Your task to perform on an android device: toggle sleep mode Image 0: 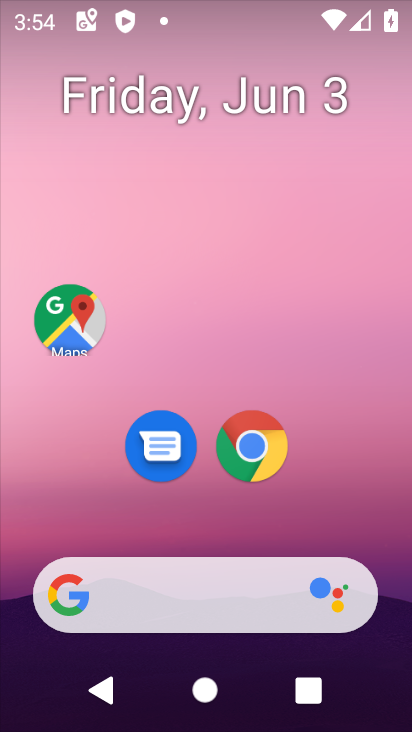
Step 0: task complete